Your task to perform on an android device: find which apps use the phone's location Image 0: 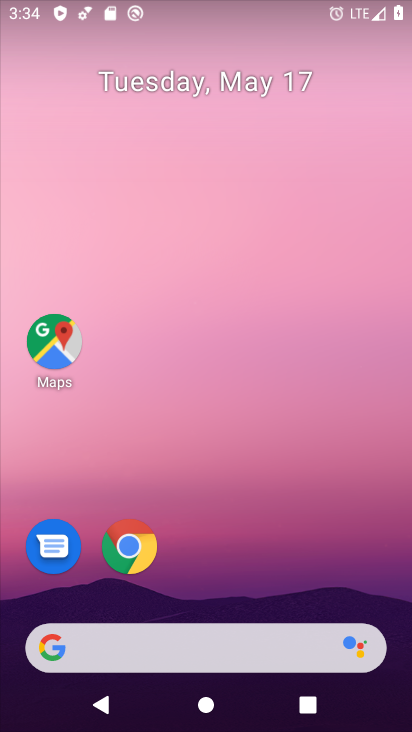
Step 0: drag from (320, 530) to (252, 48)
Your task to perform on an android device: find which apps use the phone's location Image 1: 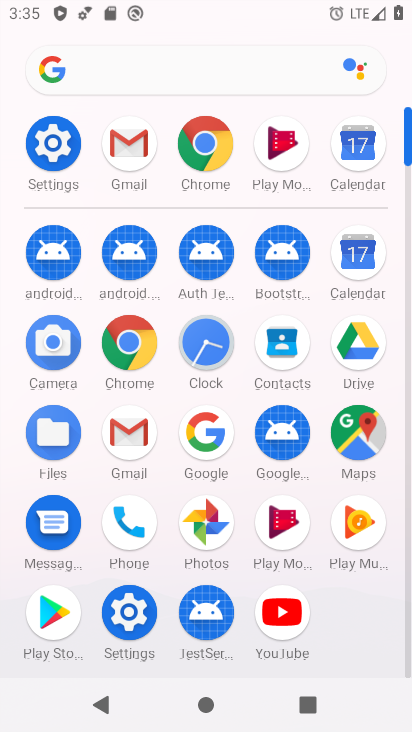
Step 1: click (125, 526)
Your task to perform on an android device: find which apps use the phone's location Image 2: 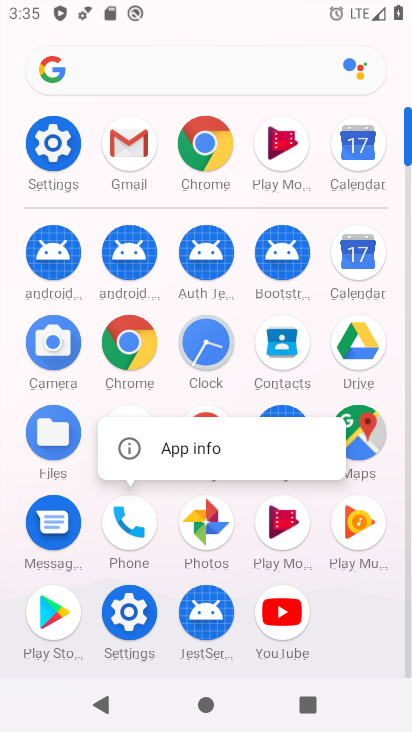
Step 2: click (220, 456)
Your task to perform on an android device: find which apps use the phone's location Image 3: 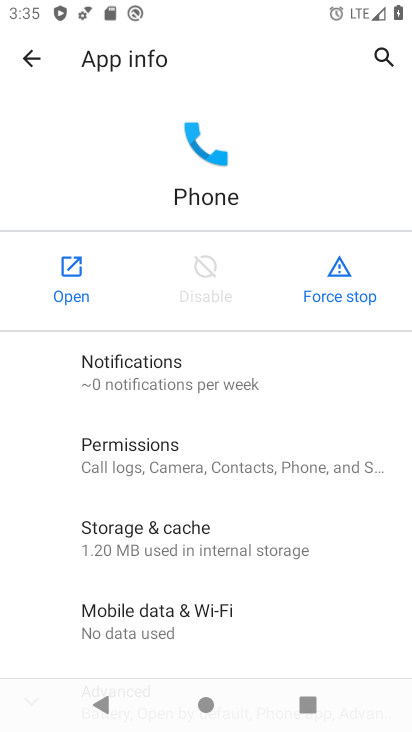
Step 3: click (180, 442)
Your task to perform on an android device: find which apps use the phone's location Image 4: 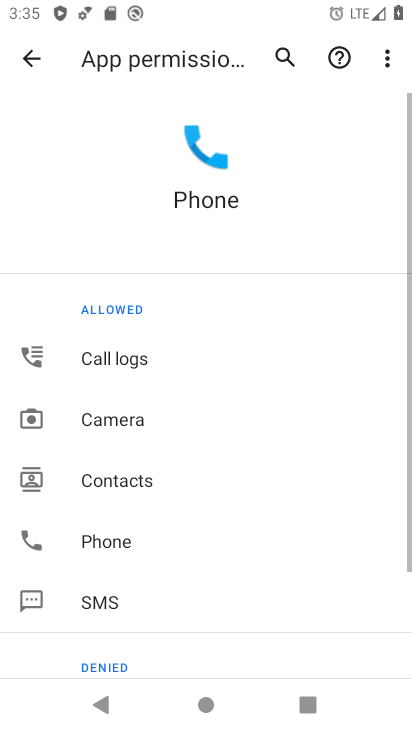
Step 4: drag from (134, 611) to (214, 236)
Your task to perform on an android device: find which apps use the phone's location Image 5: 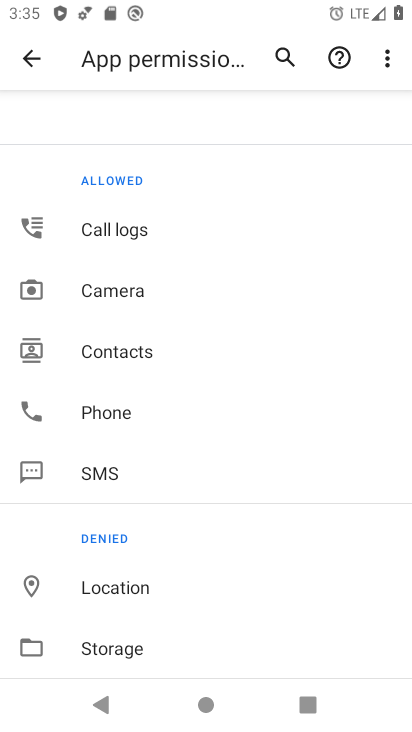
Step 5: click (95, 594)
Your task to perform on an android device: find which apps use the phone's location Image 6: 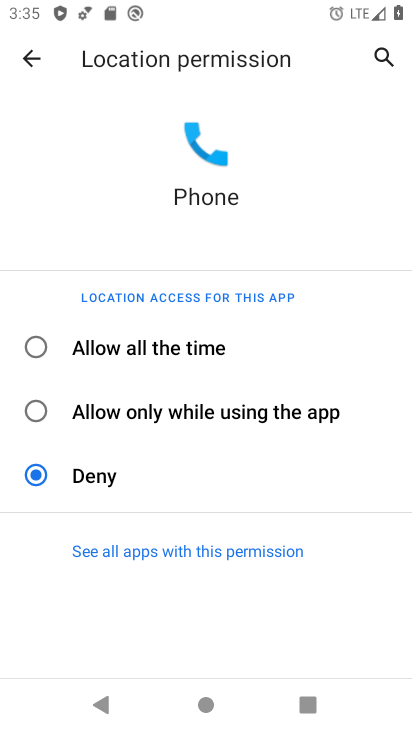
Step 6: click (79, 553)
Your task to perform on an android device: find which apps use the phone's location Image 7: 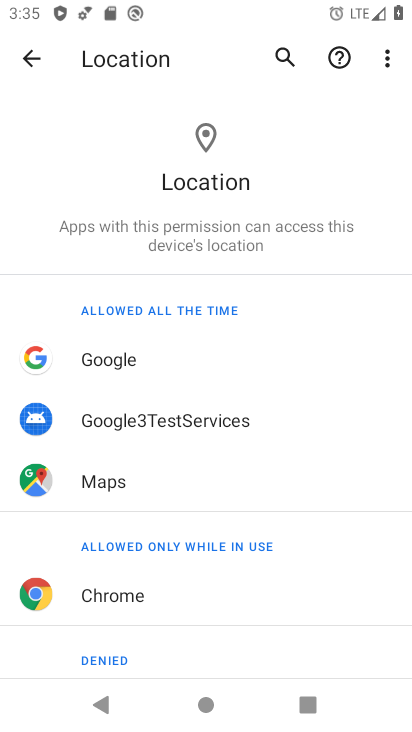
Step 7: task complete